Your task to perform on an android device: empty trash in the gmail app Image 0: 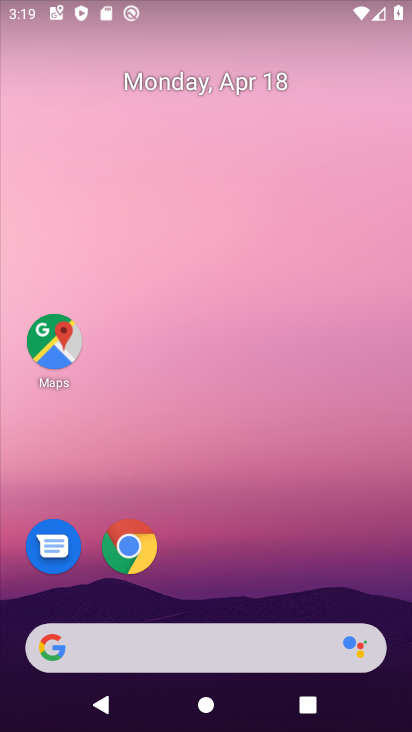
Step 0: drag from (254, 578) to (258, 97)
Your task to perform on an android device: empty trash in the gmail app Image 1: 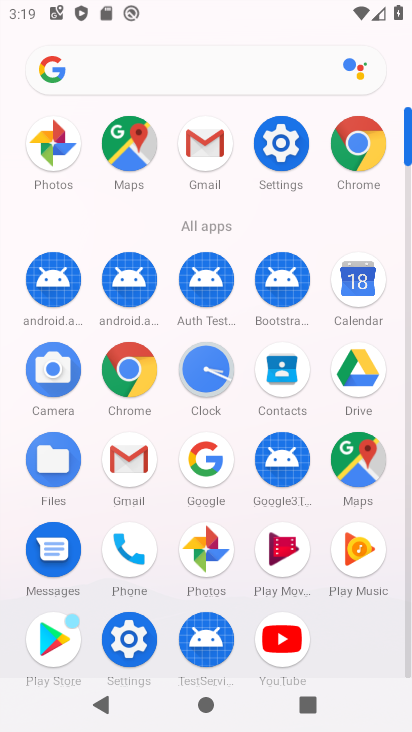
Step 1: click (200, 153)
Your task to perform on an android device: empty trash in the gmail app Image 2: 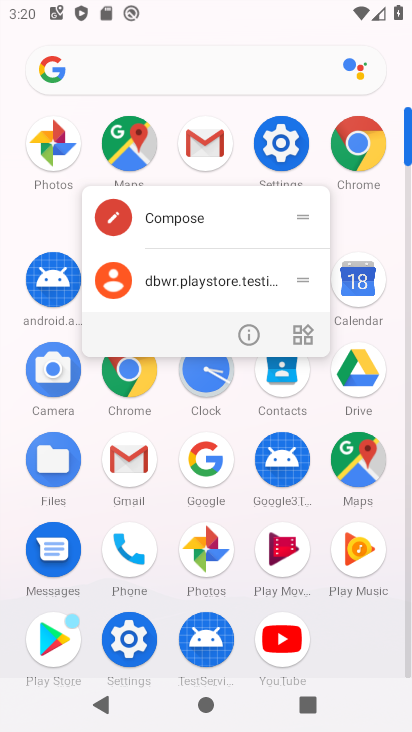
Step 2: click (199, 143)
Your task to perform on an android device: empty trash in the gmail app Image 3: 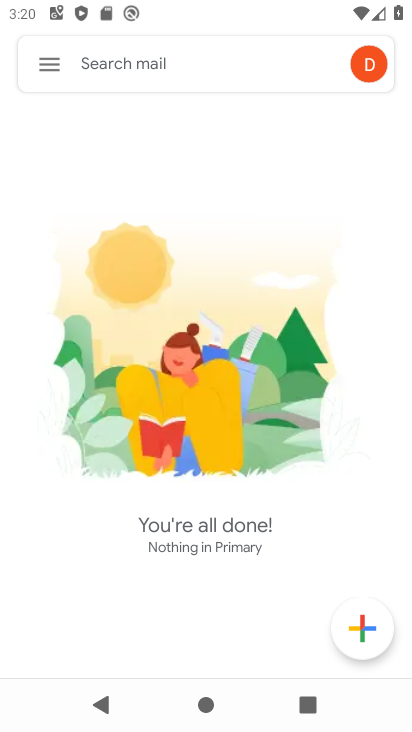
Step 3: click (49, 61)
Your task to perform on an android device: empty trash in the gmail app Image 4: 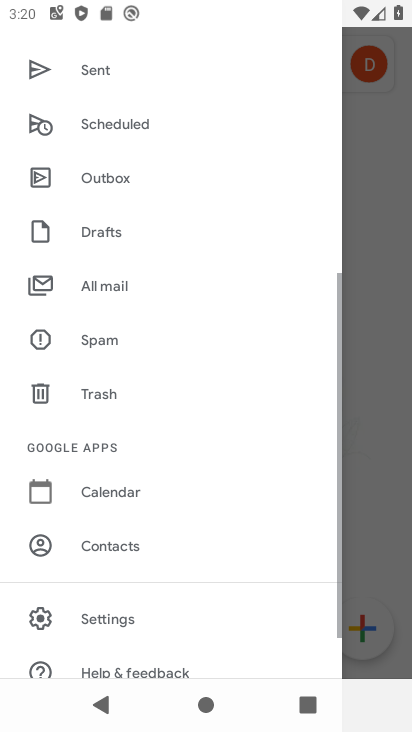
Step 4: drag from (143, 579) to (252, 190)
Your task to perform on an android device: empty trash in the gmail app Image 5: 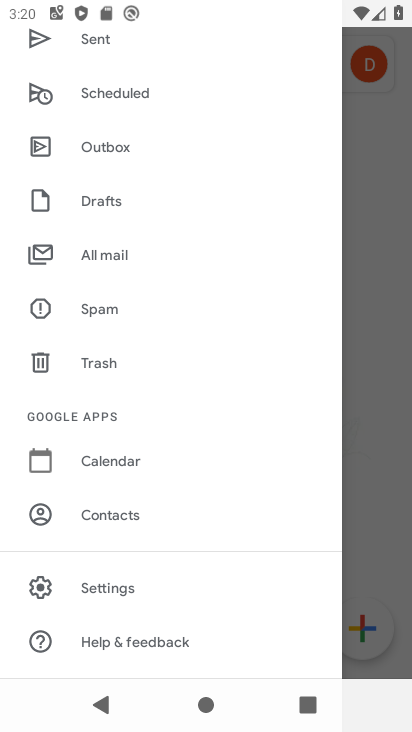
Step 5: click (110, 367)
Your task to perform on an android device: empty trash in the gmail app Image 6: 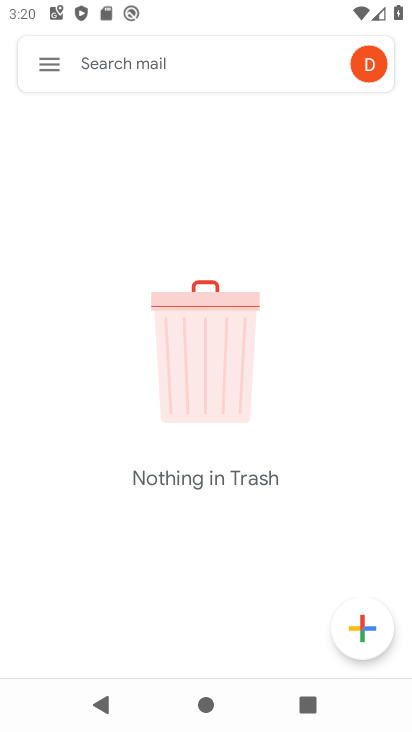
Step 6: task complete